Your task to perform on an android device: change the upload size in google photos Image 0: 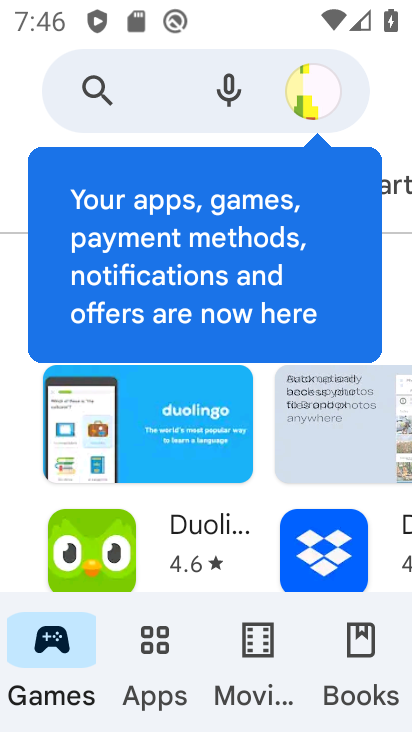
Step 0: press home button
Your task to perform on an android device: change the upload size in google photos Image 1: 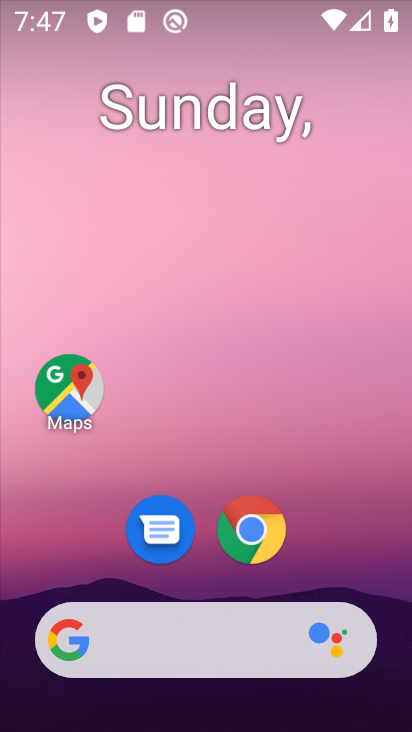
Step 1: drag from (379, 536) to (352, 0)
Your task to perform on an android device: change the upload size in google photos Image 2: 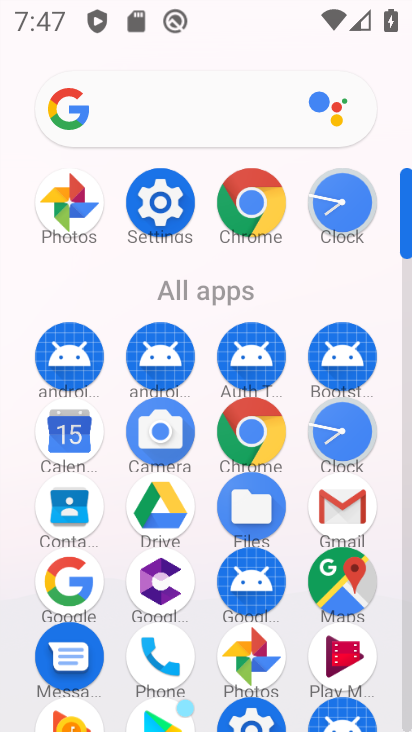
Step 2: click (86, 221)
Your task to perform on an android device: change the upload size in google photos Image 3: 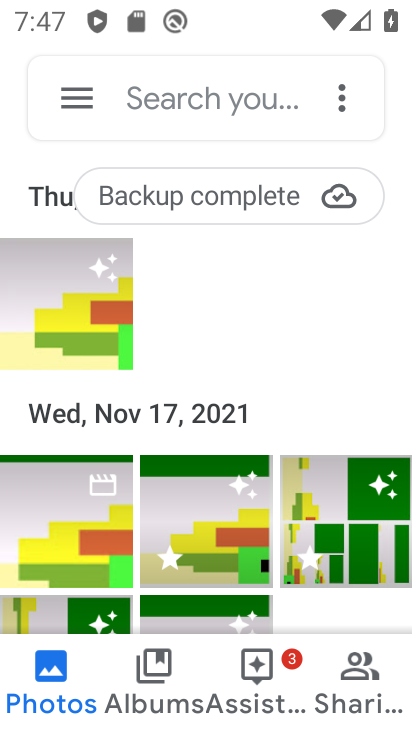
Step 3: click (355, 88)
Your task to perform on an android device: change the upload size in google photos Image 4: 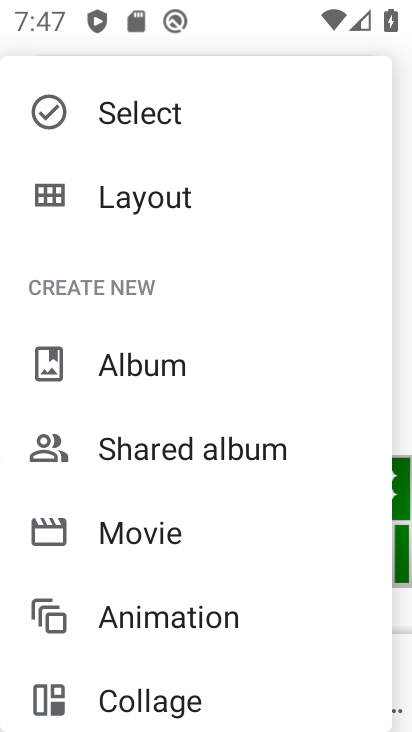
Step 4: drag from (279, 501) to (303, 726)
Your task to perform on an android device: change the upload size in google photos Image 5: 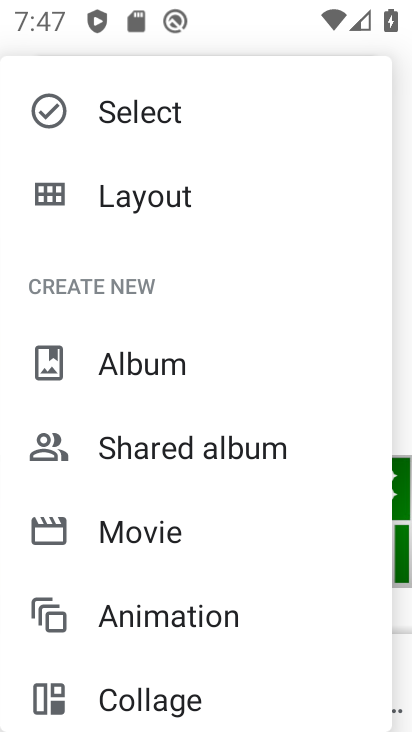
Step 5: click (403, 511)
Your task to perform on an android device: change the upload size in google photos Image 6: 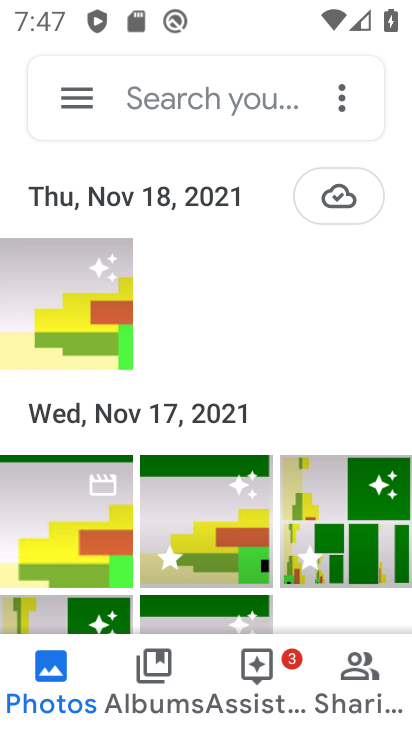
Step 6: click (347, 87)
Your task to perform on an android device: change the upload size in google photos Image 7: 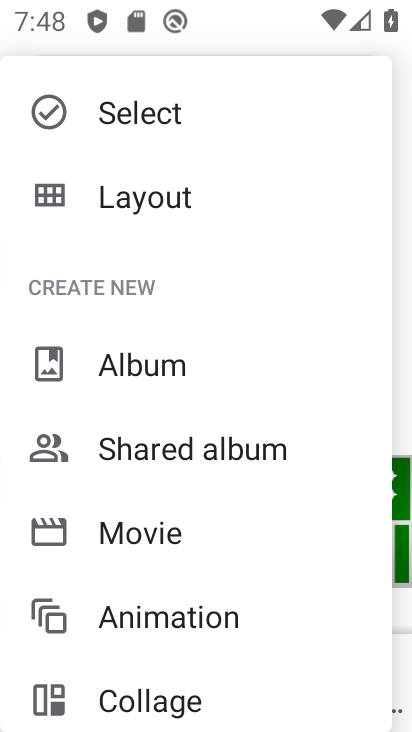
Step 7: click (396, 175)
Your task to perform on an android device: change the upload size in google photos Image 8: 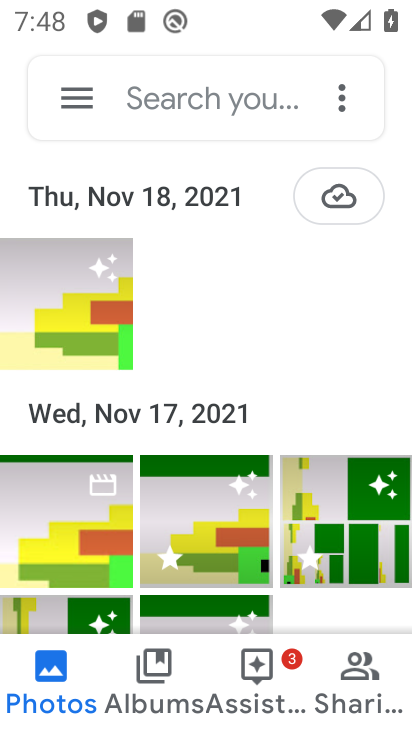
Step 8: click (70, 91)
Your task to perform on an android device: change the upload size in google photos Image 9: 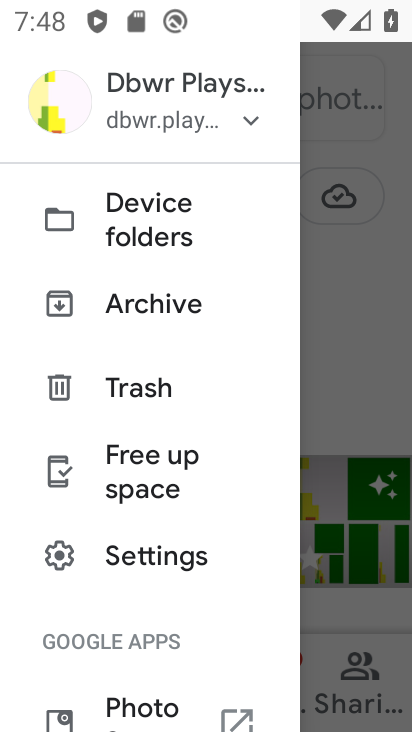
Step 9: drag from (171, 425) to (130, 114)
Your task to perform on an android device: change the upload size in google photos Image 10: 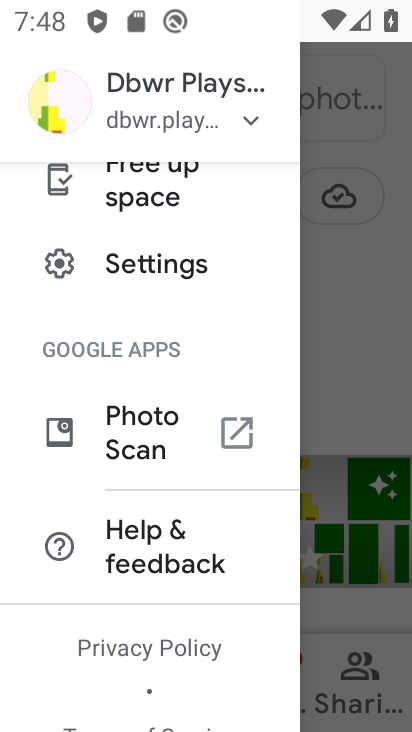
Step 10: drag from (155, 378) to (112, 51)
Your task to perform on an android device: change the upload size in google photos Image 11: 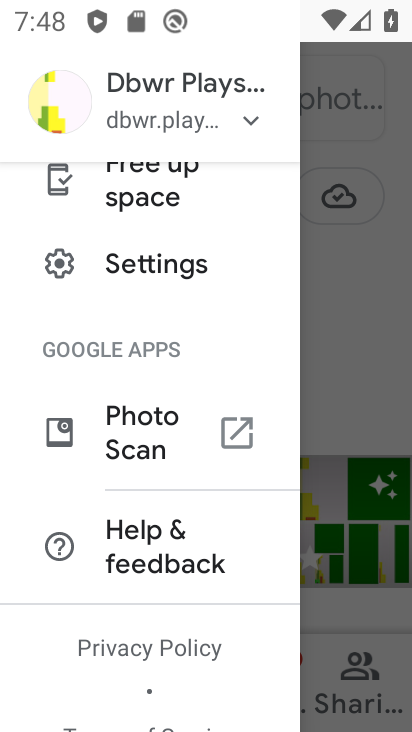
Step 11: click (204, 263)
Your task to perform on an android device: change the upload size in google photos Image 12: 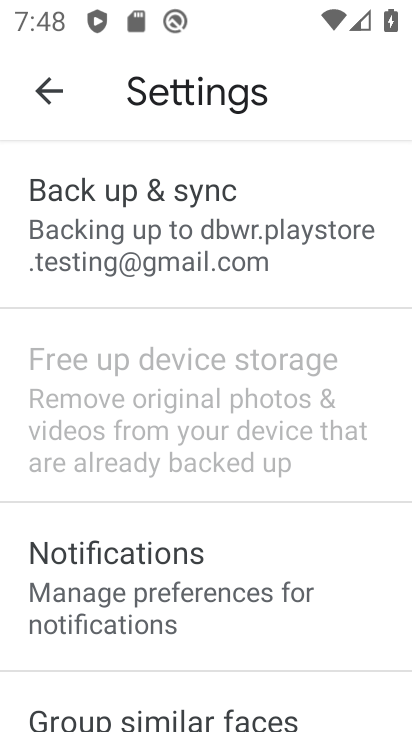
Step 12: click (223, 571)
Your task to perform on an android device: change the upload size in google photos Image 13: 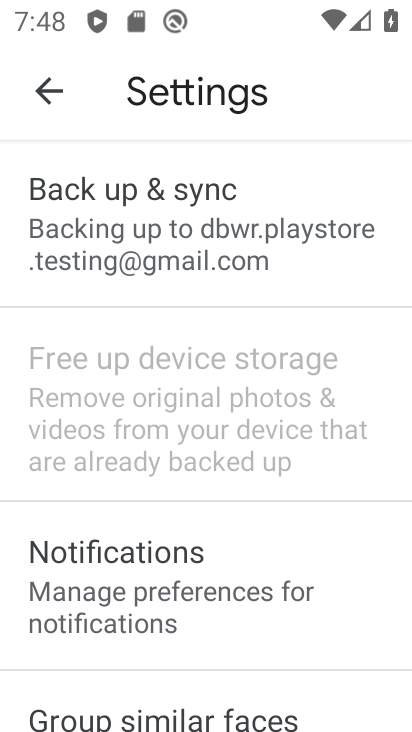
Step 13: click (141, 273)
Your task to perform on an android device: change the upload size in google photos Image 14: 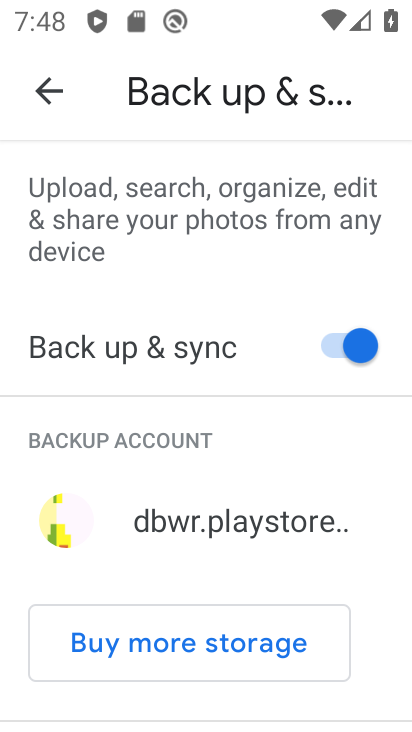
Step 14: drag from (196, 504) to (130, 166)
Your task to perform on an android device: change the upload size in google photos Image 15: 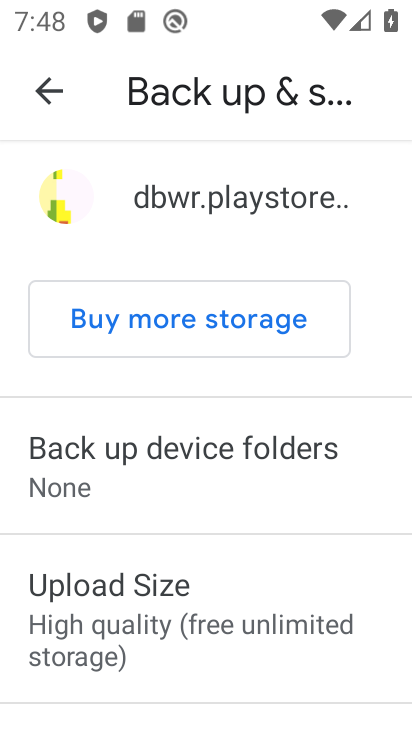
Step 15: click (129, 615)
Your task to perform on an android device: change the upload size in google photos Image 16: 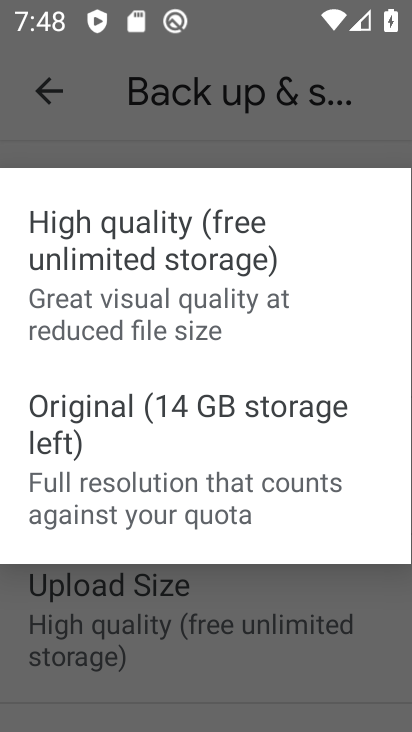
Step 16: click (180, 484)
Your task to perform on an android device: change the upload size in google photos Image 17: 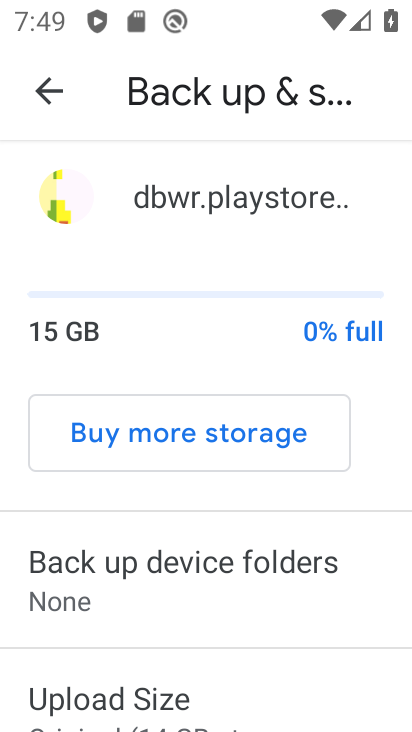
Step 17: task complete